Your task to perform on an android device: open app "Microsoft Excel" (install if not already installed) Image 0: 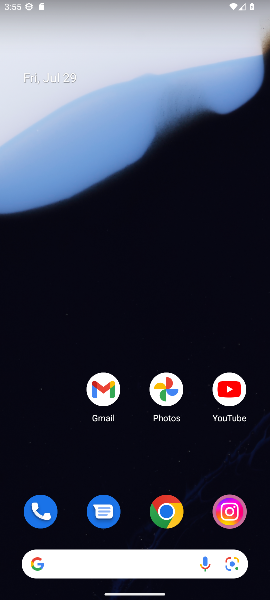
Step 0: drag from (25, 549) to (177, 117)
Your task to perform on an android device: open app "Microsoft Excel" (install if not already installed) Image 1: 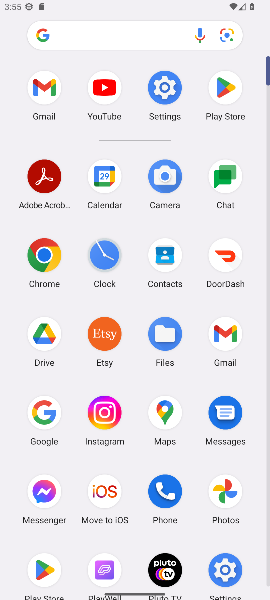
Step 1: click (30, 571)
Your task to perform on an android device: open app "Microsoft Excel" (install if not already installed) Image 2: 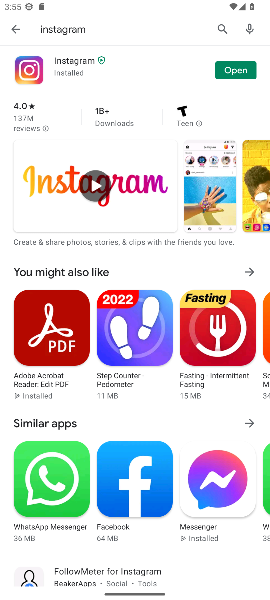
Step 2: click (17, 29)
Your task to perform on an android device: open app "Microsoft Excel" (install if not already installed) Image 3: 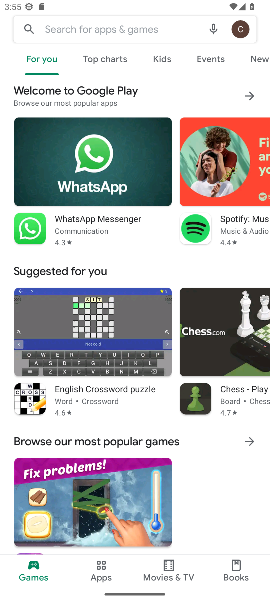
Step 3: click (68, 27)
Your task to perform on an android device: open app "Microsoft Excel" (install if not already installed) Image 4: 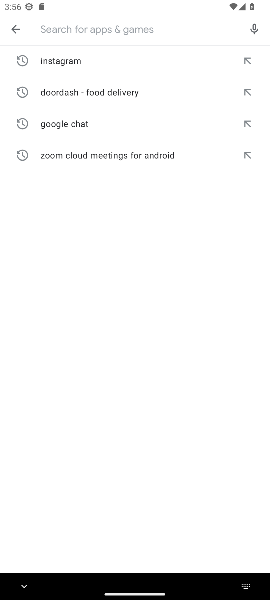
Step 4: type "Microsoft Excel"
Your task to perform on an android device: open app "Microsoft Excel" (install if not already installed) Image 5: 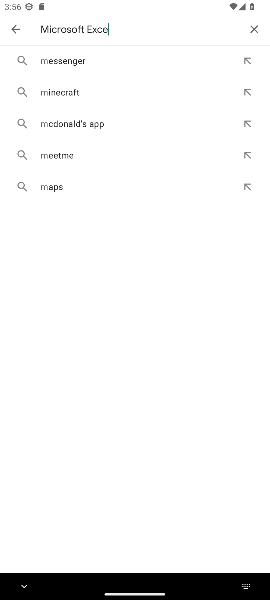
Step 5: type ""
Your task to perform on an android device: open app "Microsoft Excel" (install if not already installed) Image 6: 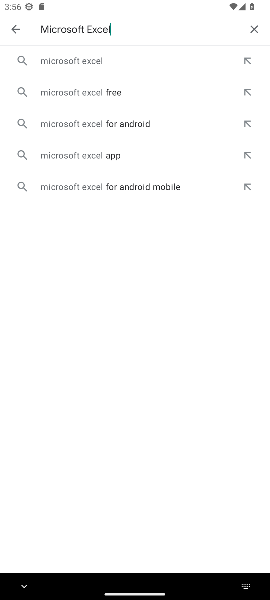
Step 6: click (69, 58)
Your task to perform on an android device: open app "Microsoft Excel" (install if not already installed) Image 7: 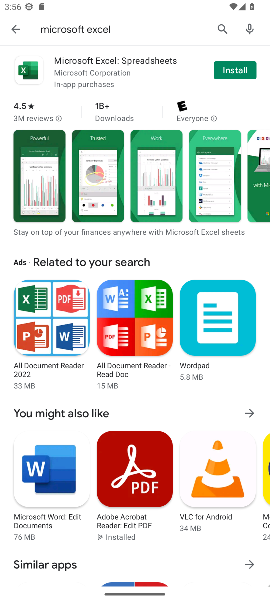
Step 7: click (226, 71)
Your task to perform on an android device: open app "Microsoft Excel" (install if not already installed) Image 8: 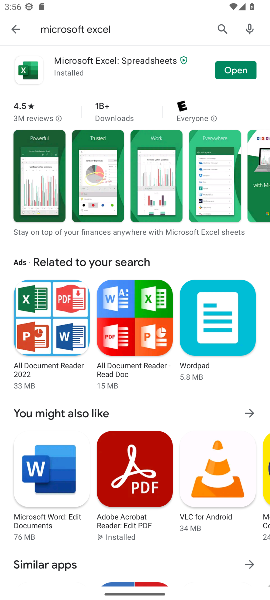
Step 8: task complete